Your task to perform on an android device: How much does a 3 bedroom apartment rent for in Denver? Image 0: 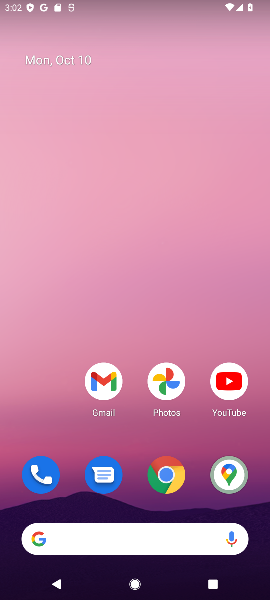
Step 0: drag from (123, 477) to (114, 258)
Your task to perform on an android device: How much does a 3 bedroom apartment rent for in Denver? Image 1: 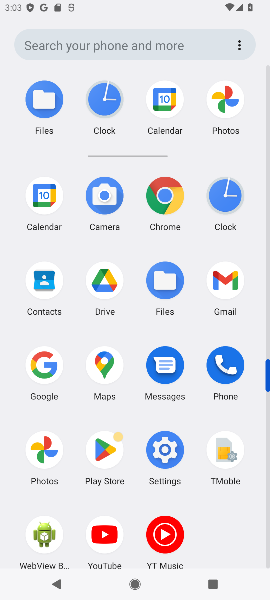
Step 1: click (46, 369)
Your task to perform on an android device: How much does a 3 bedroom apartment rent for in Denver? Image 2: 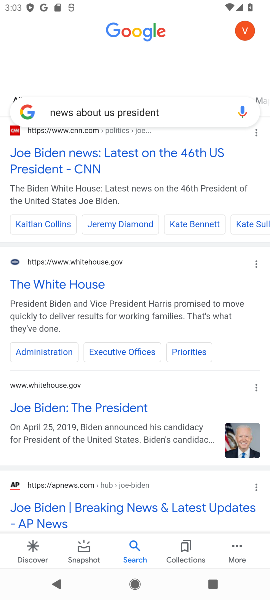
Step 2: click (194, 112)
Your task to perform on an android device: How much does a 3 bedroom apartment rent for in Denver? Image 3: 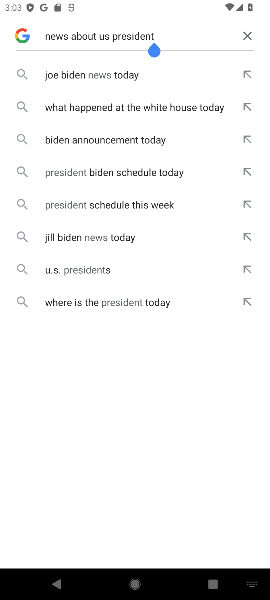
Step 3: click (250, 37)
Your task to perform on an android device: How much does a 3 bedroom apartment rent for in Denver? Image 4: 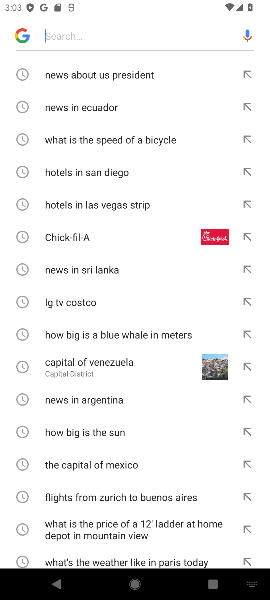
Step 4: type "3 bedroom apartment rent for in Denver"
Your task to perform on an android device: How much does a 3 bedroom apartment rent for in Denver? Image 5: 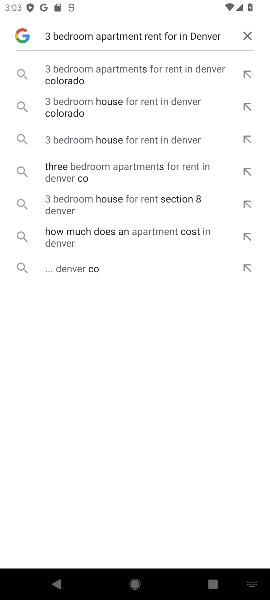
Step 5: click (166, 142)
Your task to perform on an android device: How much does a 3 bedroom apartment rent for in Denver? Image 6: 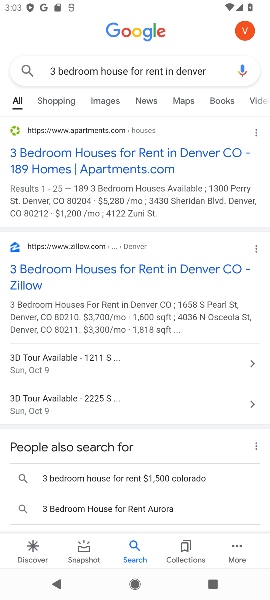
Step 6: task complete